Your task to perform on an android device: toggle data saver in the chrome app Image 0: 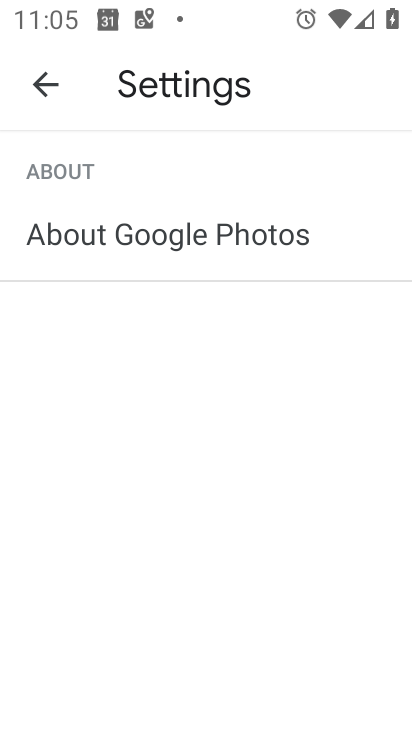
Step 0: press home button
Your task to perform on an android device: toggle data saver in the chrome app Image 1: 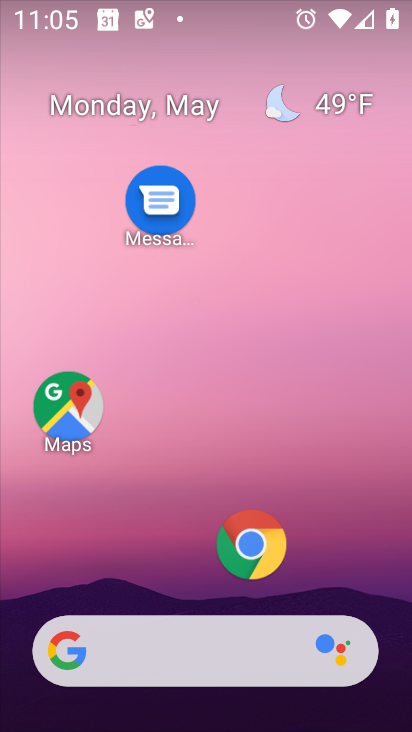
Step 1: click (257, 550)
Your task to perform on an android device: toggle data saver in the chrome app Image 2: 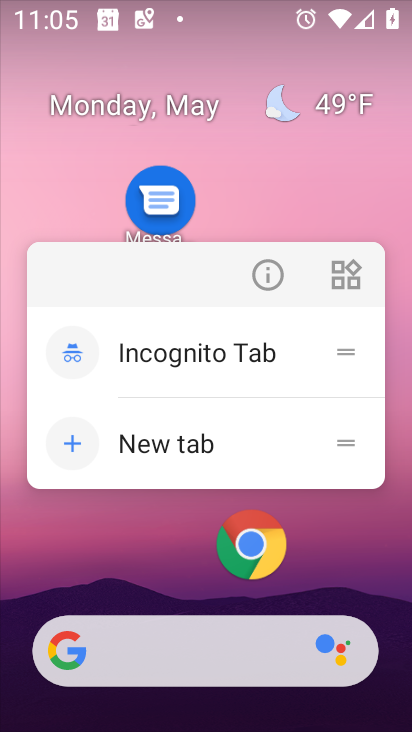
Step 2: click (257, 550)
Your task to perform on an android device: toggle data saver in the chrome app Image 3: 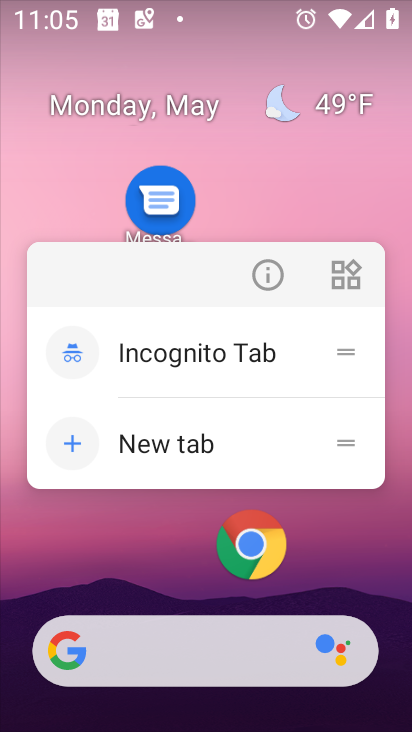
Step 3: click (252, 546)
Your task to perform on an android device: toggle data saver in the chrome app Image 4: 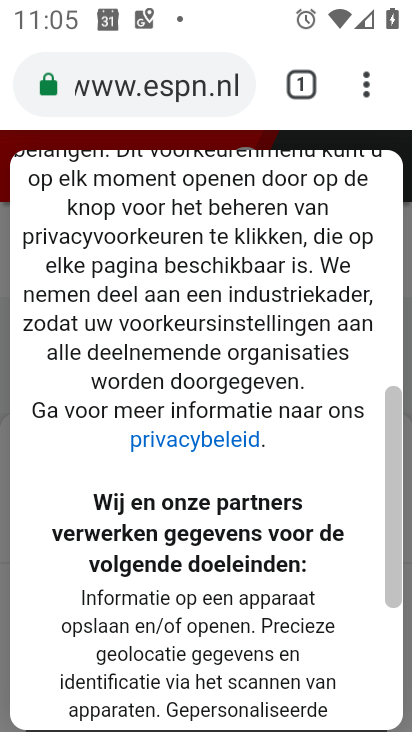
Step 4: click (364, 89)
Your task to perform on an android device: toggle data saver in the chrome app Image 5: 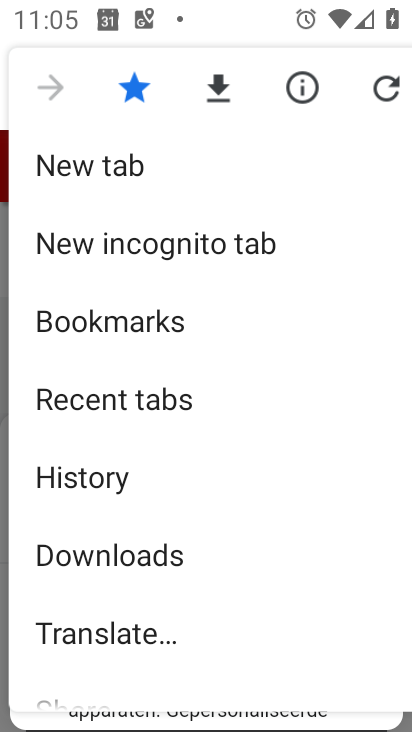
Step 5: drag from (204, 585) to (254, 249)
Your task to perform on an android device: toggle data saver in the chrome app Image 6: 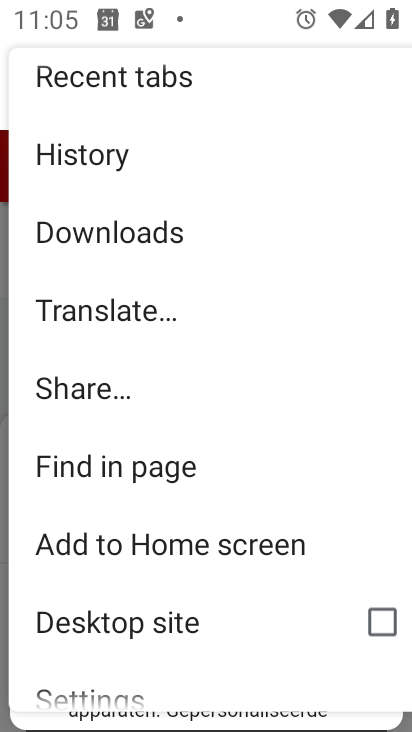
Step 6: drag from (173, 651) to (180, 494)
Your task to perform on an android device: toggle data saver in the chrome app Image 7: 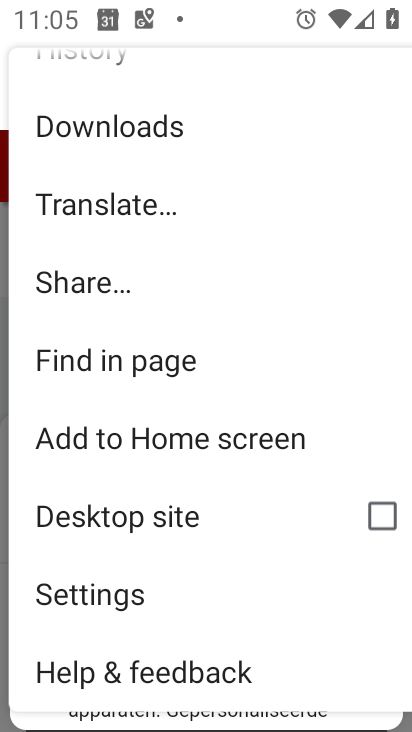
Step 7: click (162, 595)
Your task to perform on an android device: toggle data saver in the chrome app Image 8: 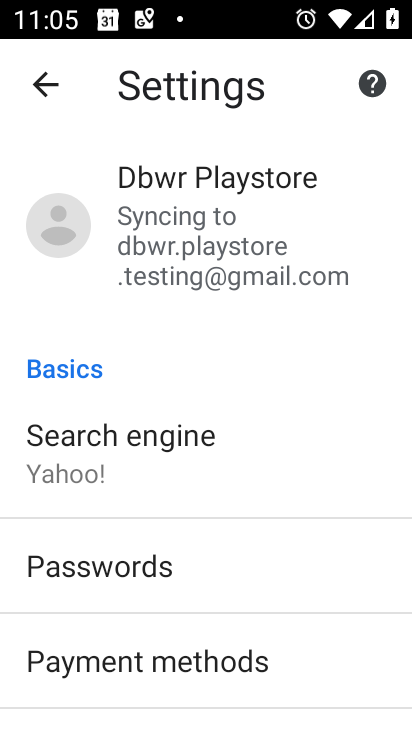
Step 8: drag from (163, 624) to (198, 438)
Your task to perform on an android device: toggle data saver in the chrome app Image 9: 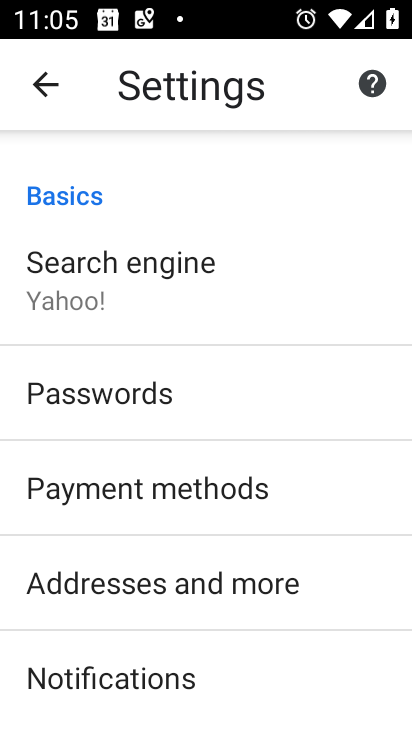
Step 9: drag from (187, 661) to (197, 482)
Your task to perform on an android device: toggle data saver in the chrome app Image 10: 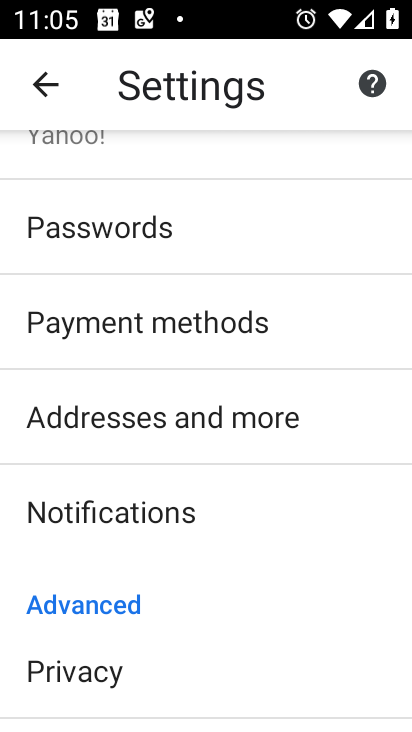
Step 10: drag from (220, 659) to (225, 543)
Your task to perform on an android device: toggle data saver in the chrome app Image 11: 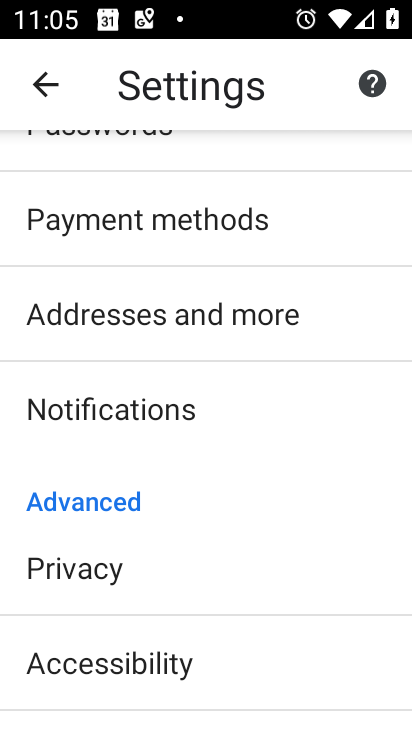
Step 11: drag from (194, 654) to (242, 449)
Your task to perform on an android device: toggle data saver in the chrome app Image 12: 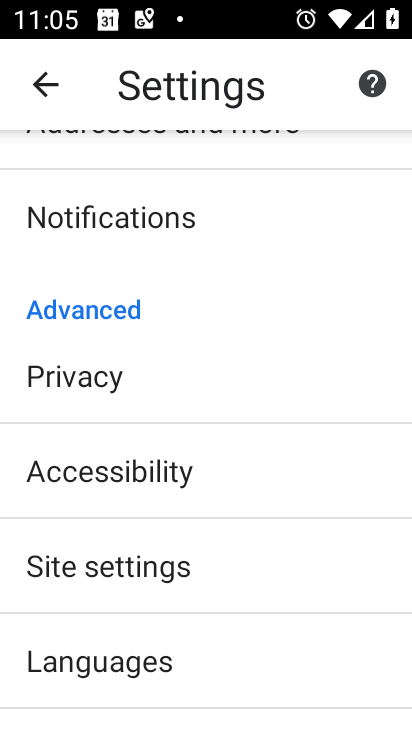
Step 12: drag from (167, 634) to (193, 488)
Your task to perform on an android device: toggle data saver in the chrome app Image 13: 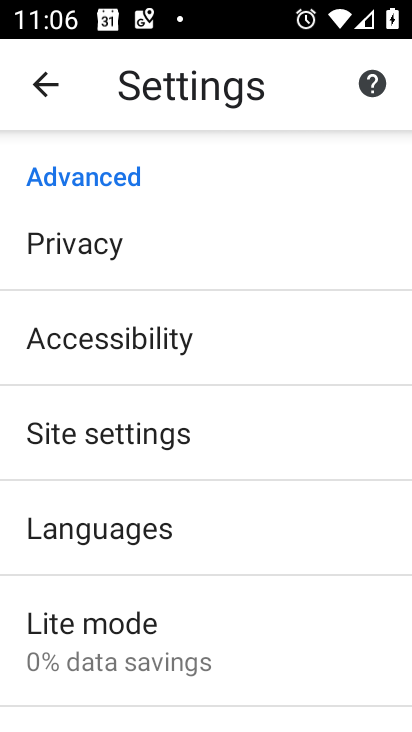
Step 13: click (216, 639)
Your task to perform on an android device: toggle data saver in the chrome app Image 14: 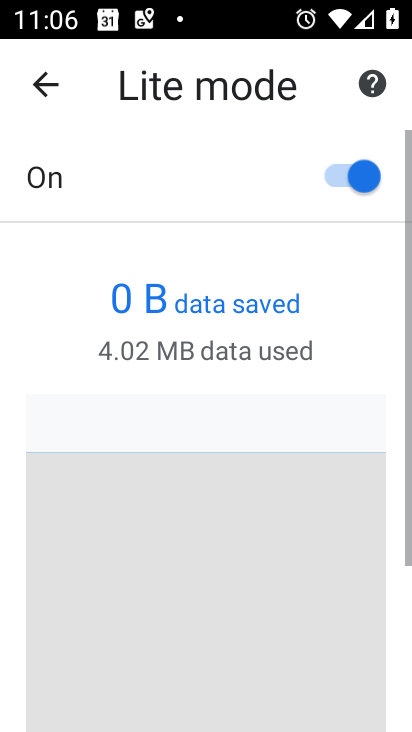
Step 14: click (334, 176)
Your task to perform on an android device: toggle data saver in the chrome app Image 15: 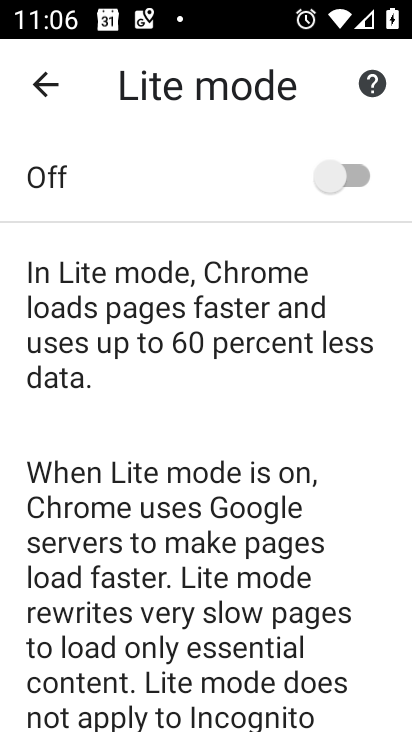
Step 15: task complete